Your task to perform on an android device: manage bookmarks in the chrome app Image 0: 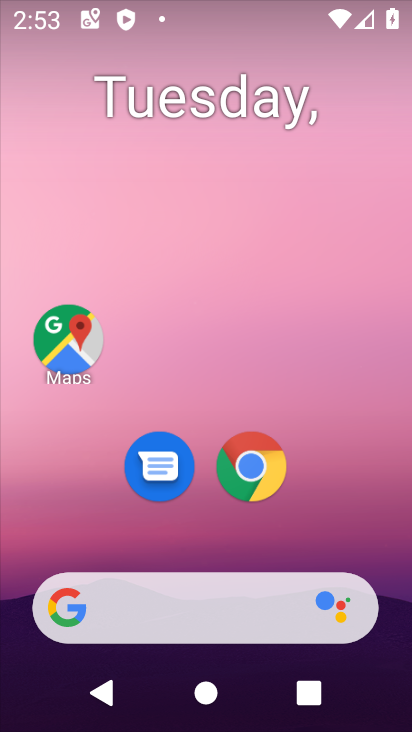
Step 0: click (272, 494)
Your task to perform on an android device: manage bookmarks in the chrome app Image 1: 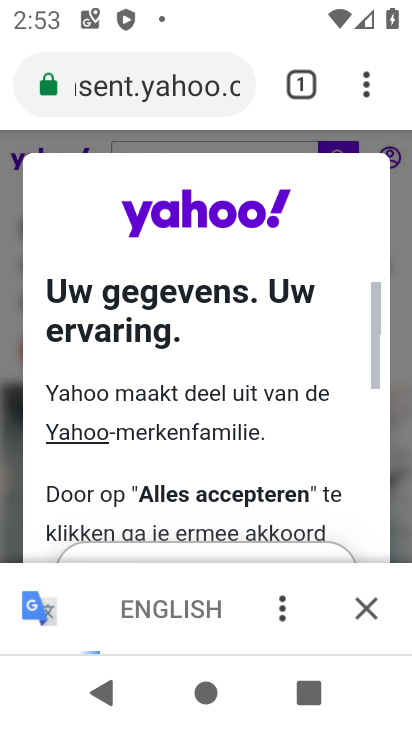
Step 1: click (366, 90)
Your task to perform on an android device: manage bookmarks in the chrome app Image 2: 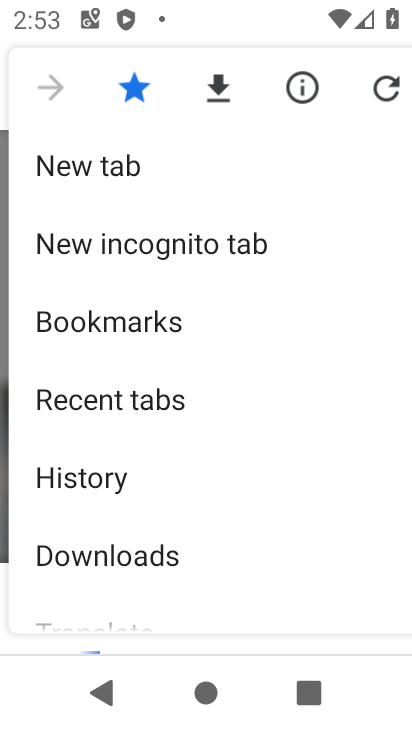
Step 2: click (131, 306)
Your task to perform on an android device: manage bookmarks in the chrome app Image 3: 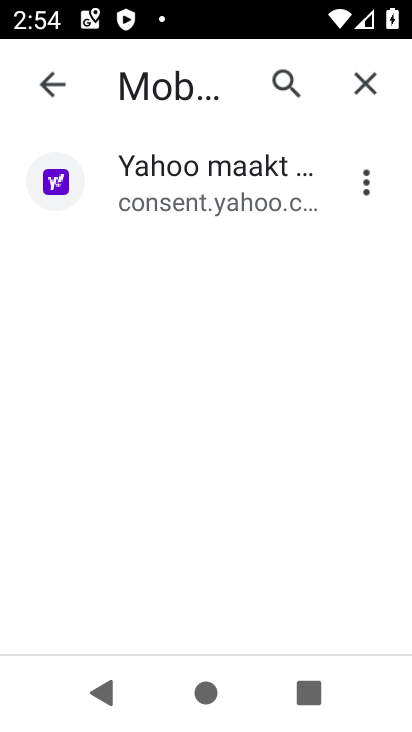
Step 3: task complete